Your task to perform on an android device: Open calendar and show me the second week of next month Image 0: 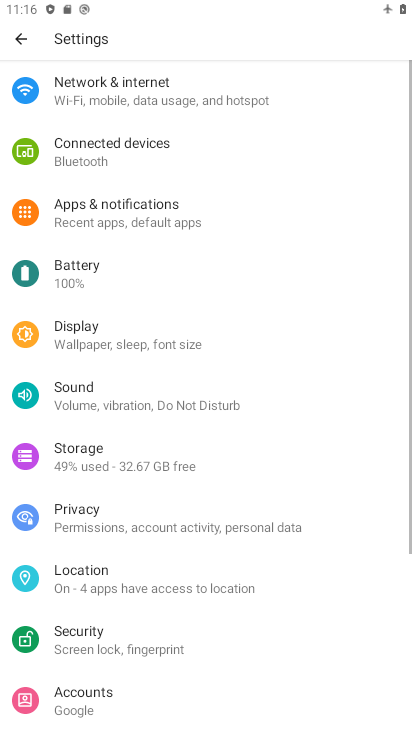
Step 0: press home button
Your task to perform on an android device: Open calendar and show me the second week of next month Image 1: 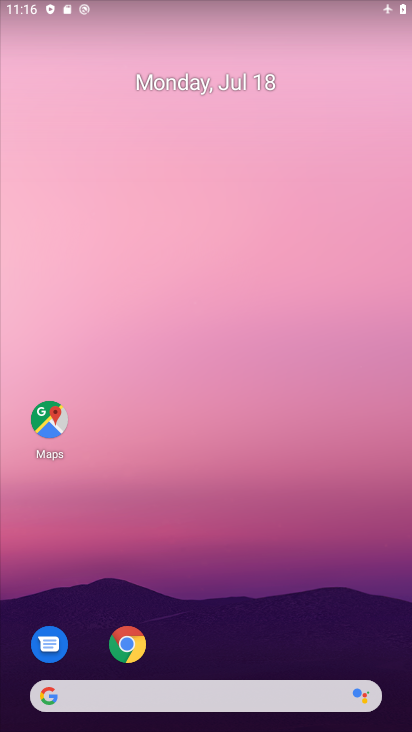
Step 1: drag from (209, 660) to (233, 163)
Your task to perform on an android device: Open calendar and show me the second week of next month Image 2: 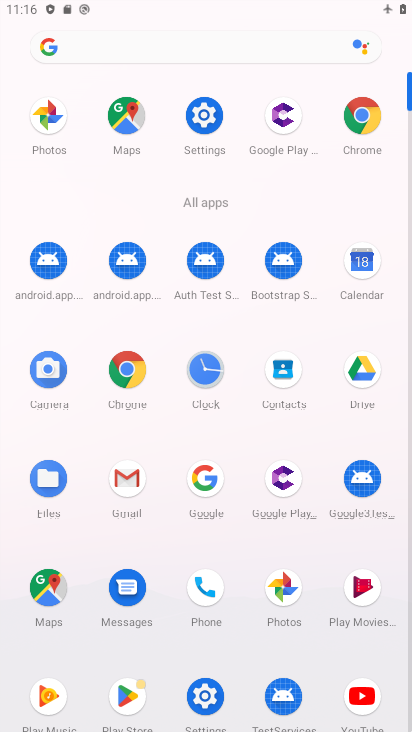
Step 2: click (355, 267)
Your task to perform on an android device: Open calendar and show me the second week of next month Image 3: 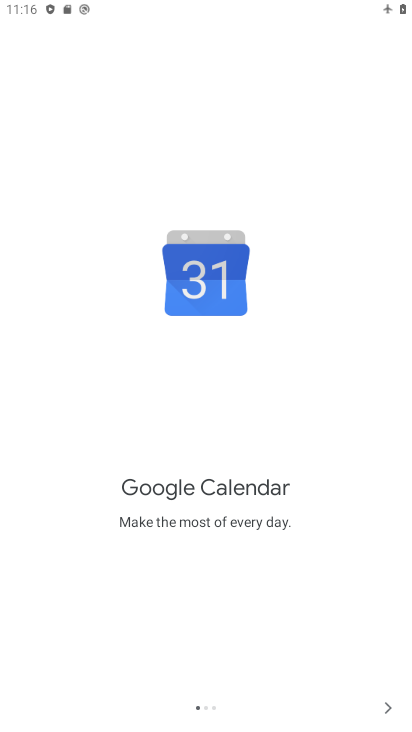
Step 3: click (394, 701)
Your task to perform on an android device: Open calendar and show me the second week of next month Image 4: 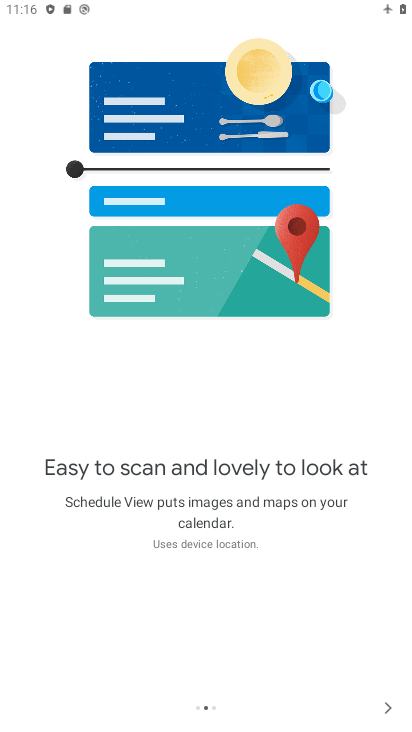
Step 4: click (394, 709)
Your task to perform on an android device: Open calendar and show me the second week of next month Image 5: 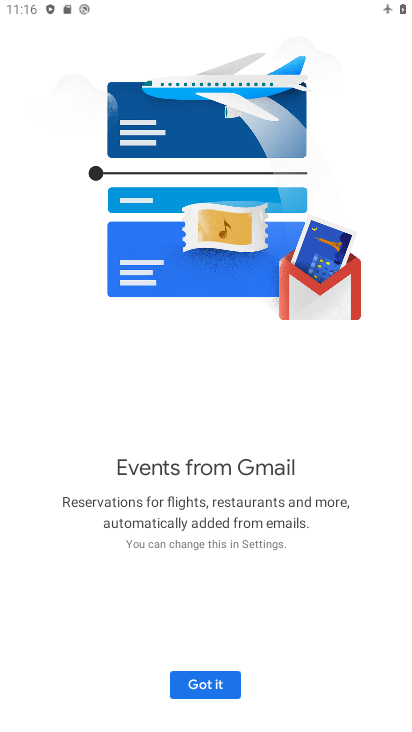
Step 5: click (236, 687)
Your task to perform on an android device: Open calendar and show me the second week of next month Image 6: 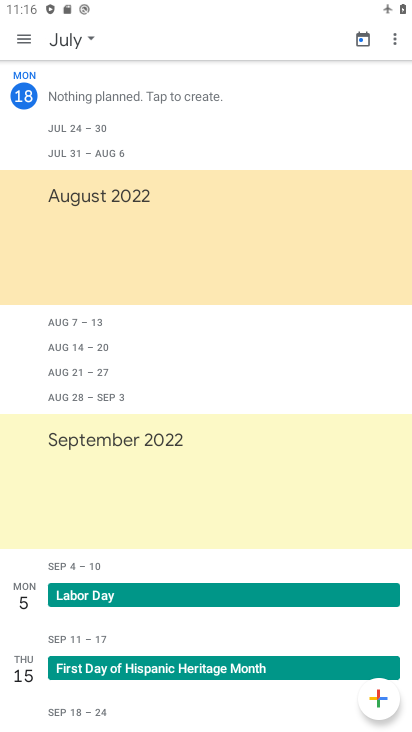
Step 6: click (23, 29)
Your task to perform on an android device: Open calendar and show me the second week of next month Image 7: 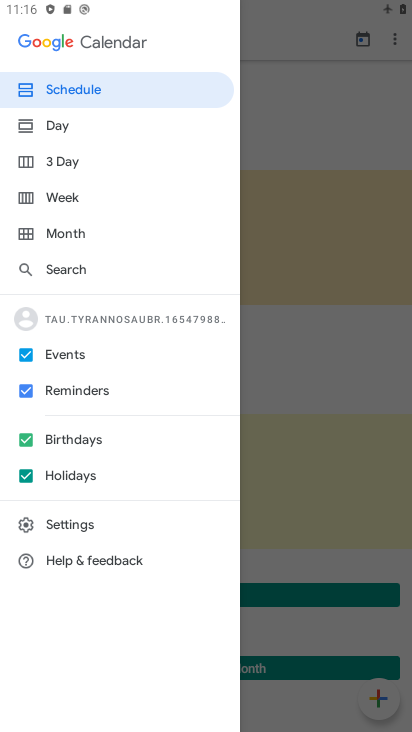
Step 7: click (66, 198)
Your task to perform on an android device: Open calendar and show me the second week of next month Image 8: 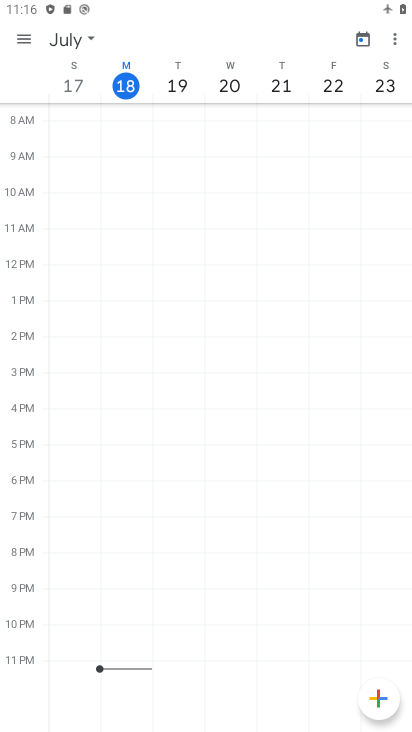
Step 8: drag from (380, 83) to (3, 54)
Your task to perform on an android device: Open calendar and show me the second week of next month Image 9: 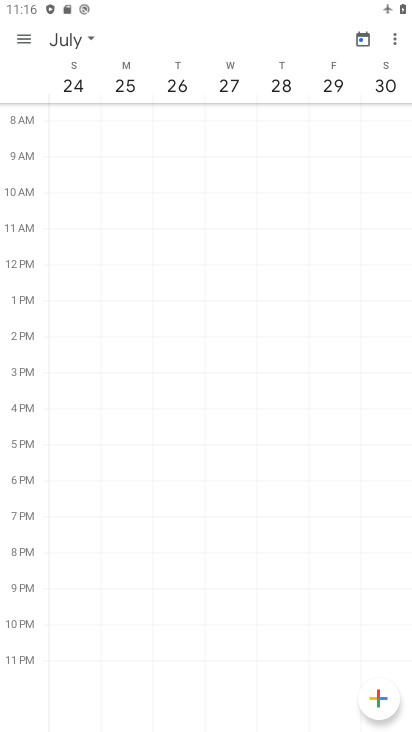
Step 9: drag from (369, 71) to (18, 57)
Your task to perform on an android device: Open calendar and show me the second week of next month Image 10: 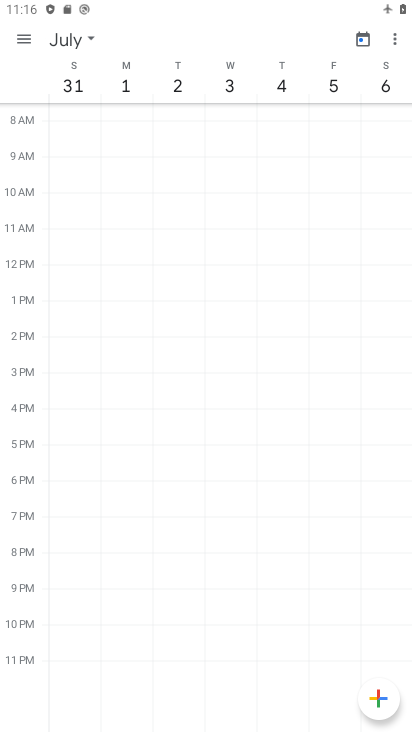
Step 10: click (4, 39)
Your task to perform on an android device: Open calendar and show me the second week of next month Image 11: 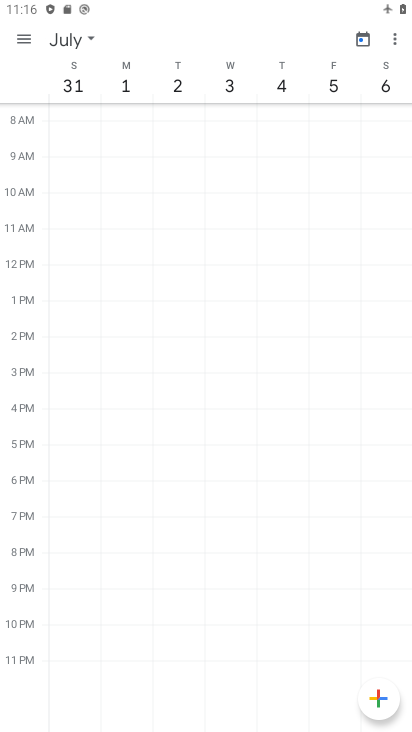
Step 11: task complete